Your task to perform on an android device: Open Maps and search for coffee Image 0: 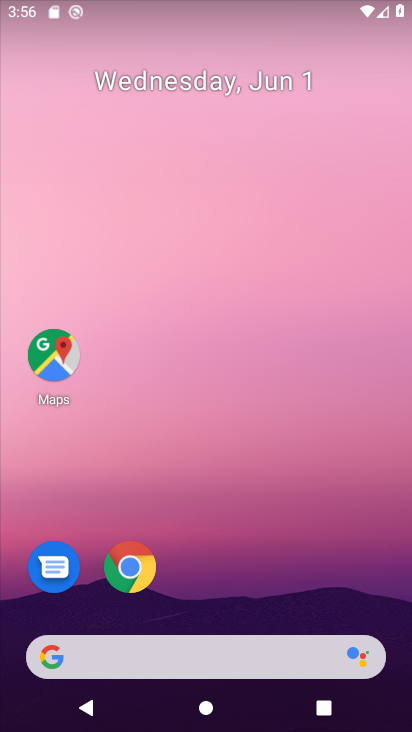
Step 0: click (50, 359)
Your task to perform on an android device: Open Maps and search for coffee Image 1: 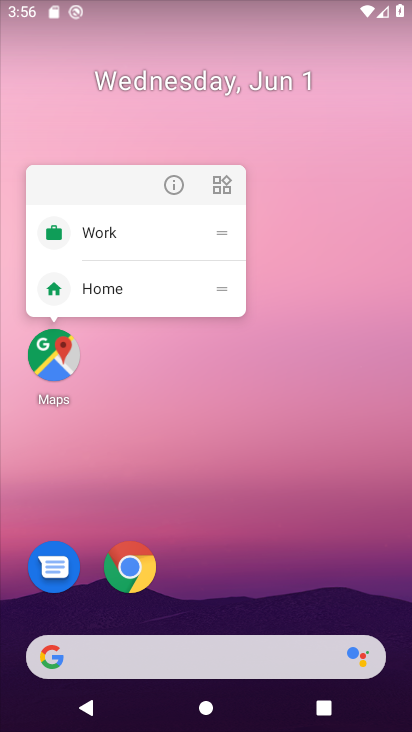
Step 1: click (58, 368)
Your task to perform on an android device: Open Maps and search for coffee Image 2: 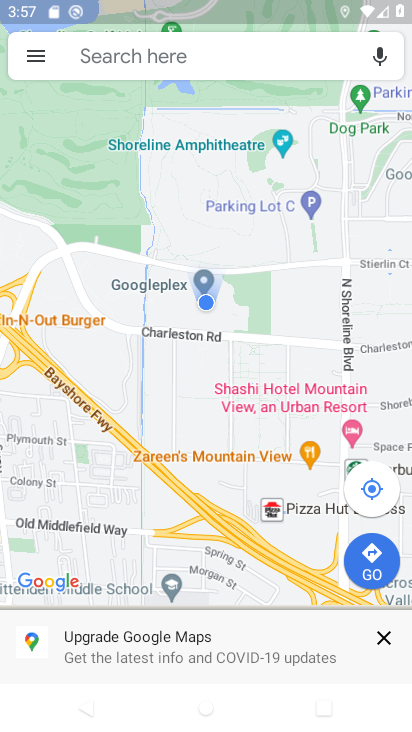
Step 2: click (117, 52)
Your task to perform on an android device: Open Maps and search for coffee Image 3: 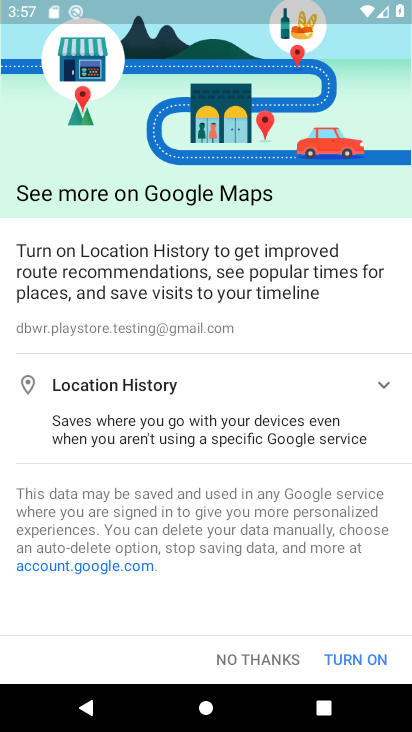
Step 3: click (257, 659)
Your task to perform on an android device: Open Maps and search for coffee Image 4: 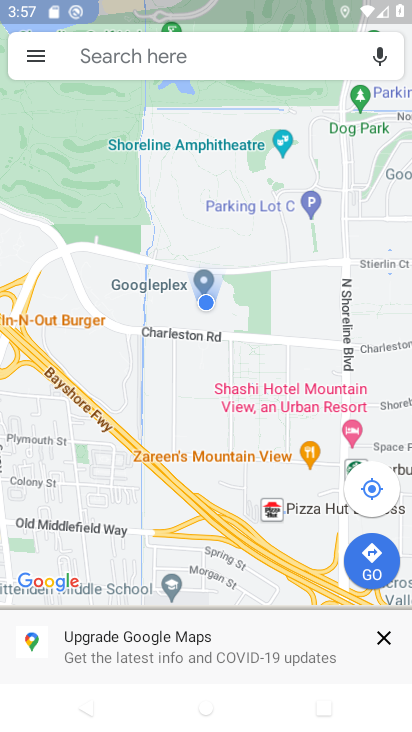
Step 4: click (119, 60)
Your task to perform on an android device: Open Maps and search for coffee Image 5: 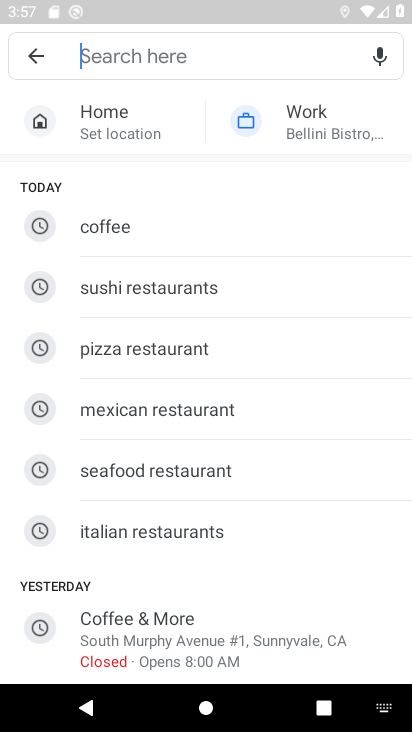
Step 5: type "coffee"
Your task to perform on an android device: Open Maps and search for coffee Image 6: 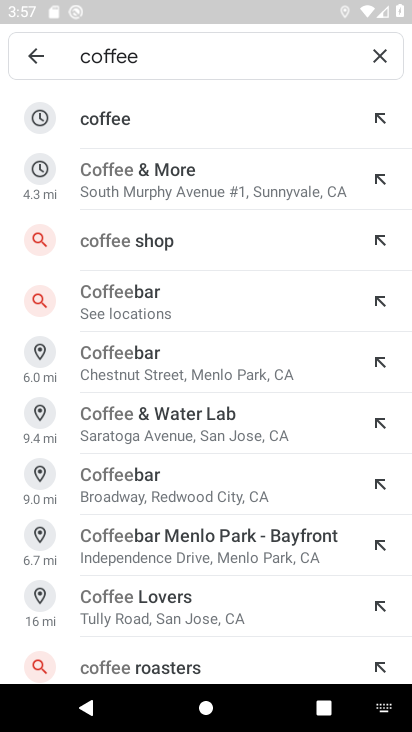
Step 6: click (94, 114)
Your task to perform on an android device: Open Maps and search for coffee Image 7: 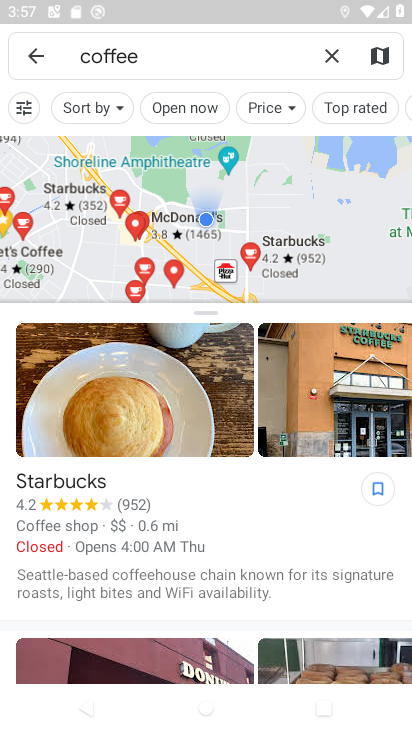
Step 7: task complete